Your task to perform on an android device: What's the weather today? Image 0: 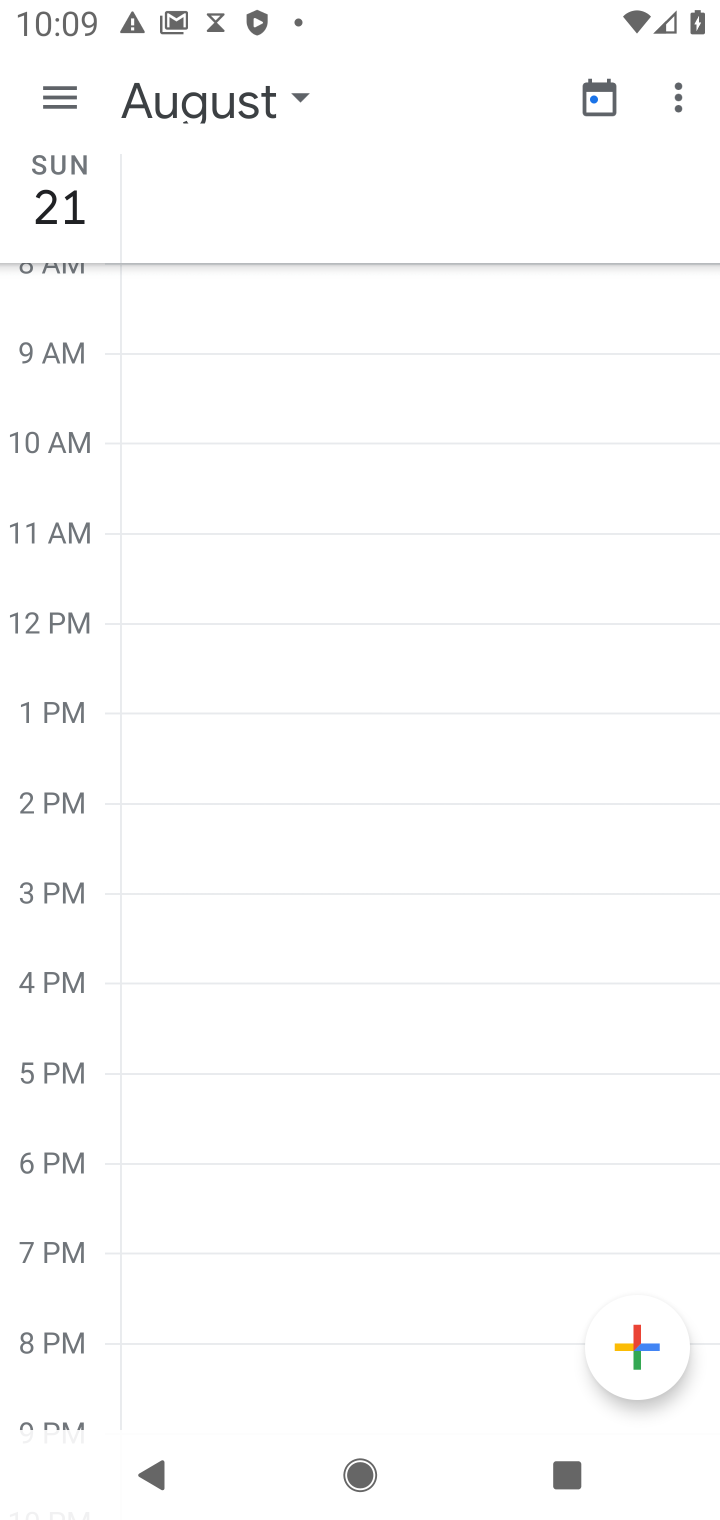
Step 0: press home button
Your task to perform on an android device: What's the weather today? Image 1: 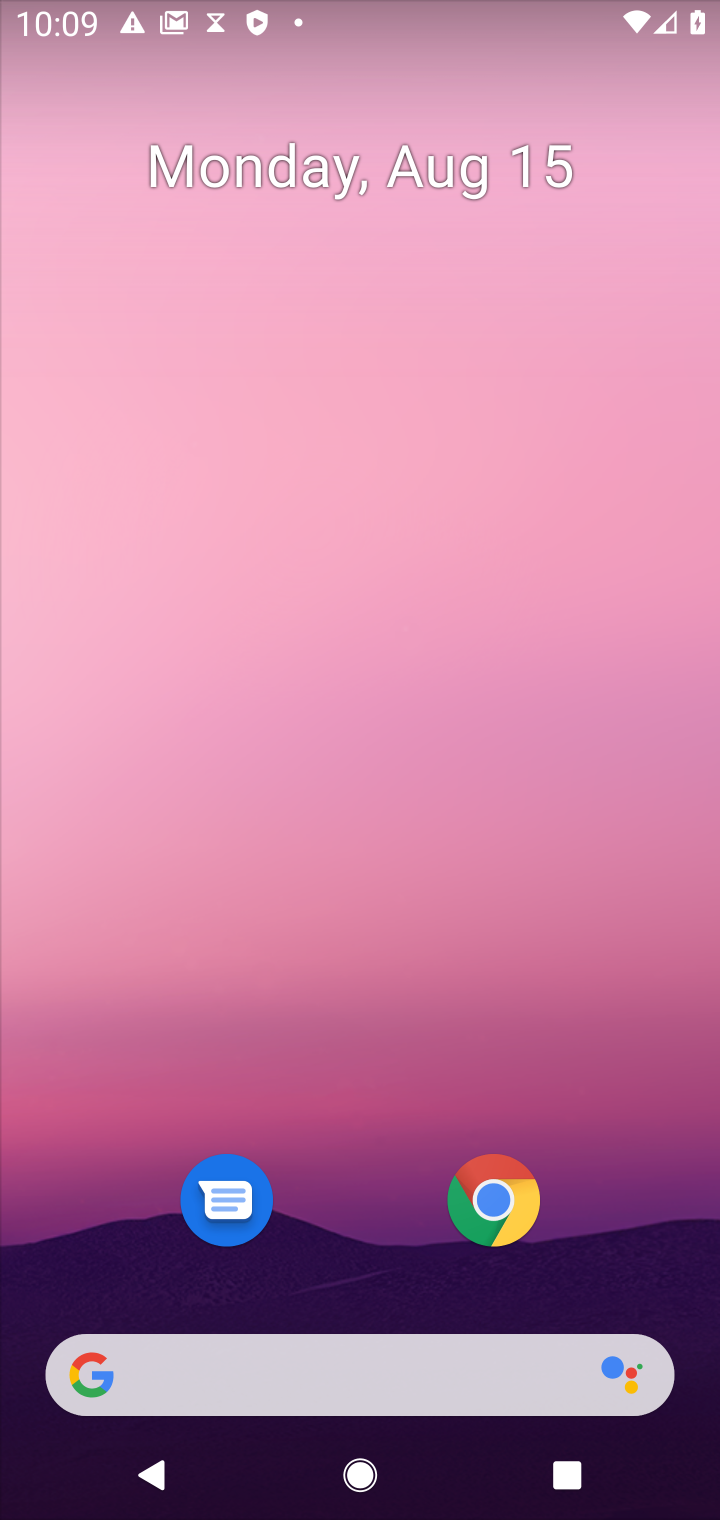
Step 1: drag from (379, 699) to (379, 279)
Your task to perform on an android device: What's the weather today? Image 2: 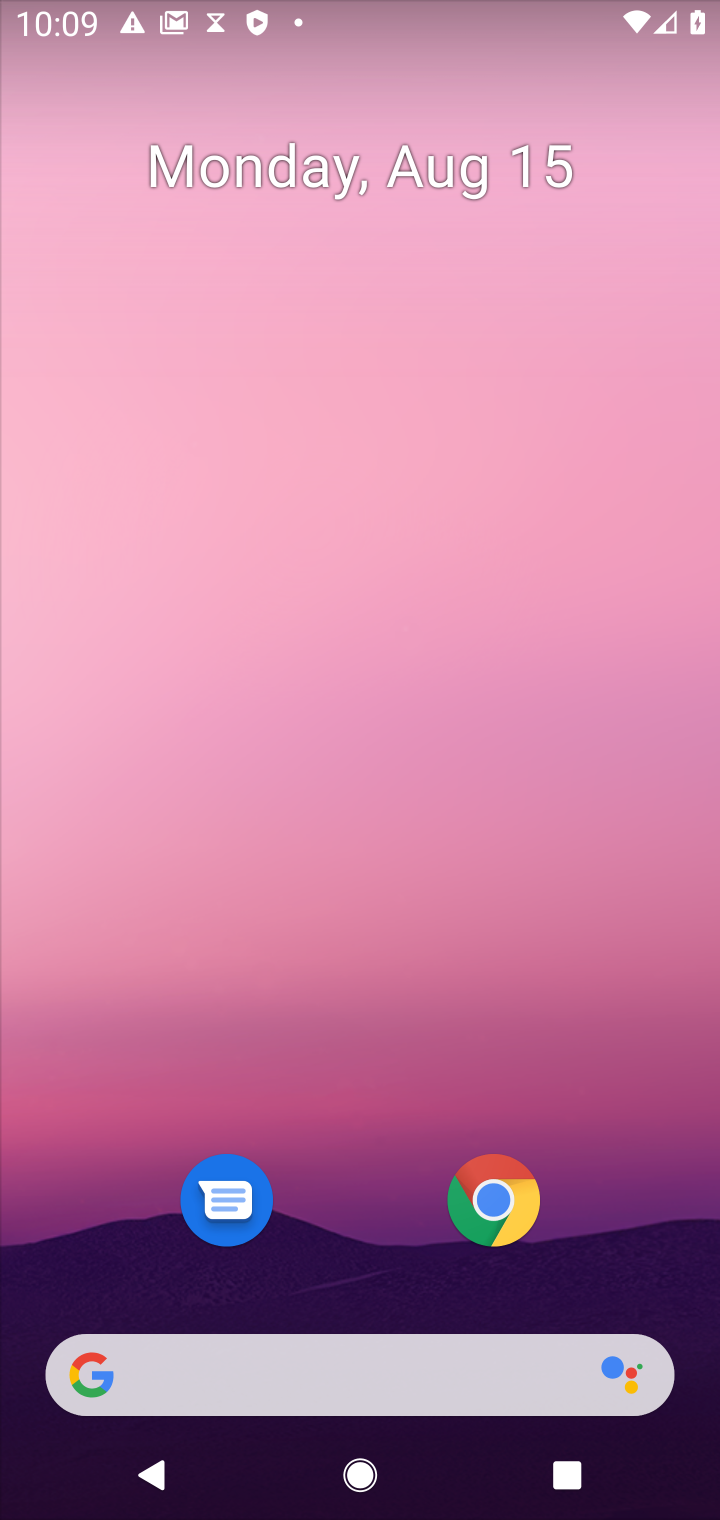
Step 2: drag from (361, 1260) to (373, 252)
Your task to perform on an android device: What's the weather today? Image 3: 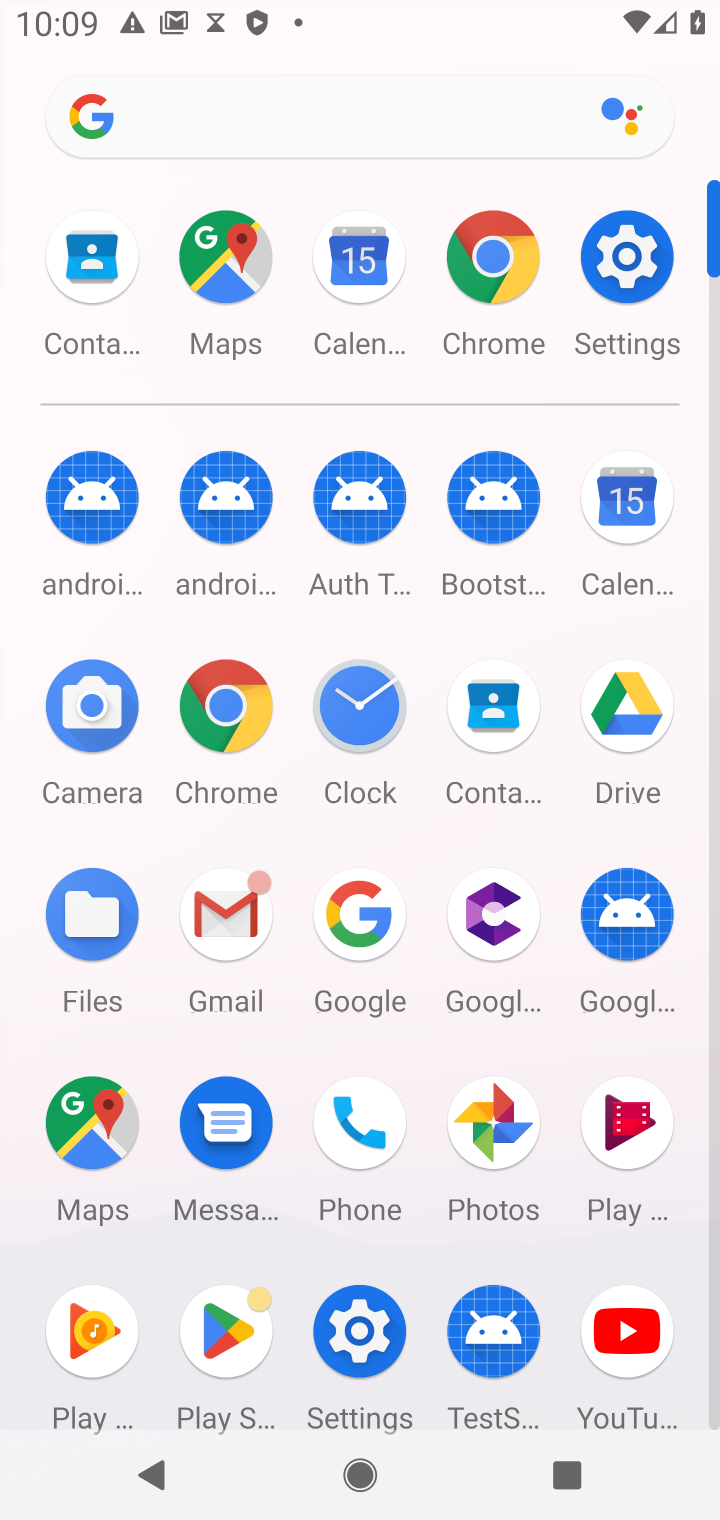
Step 3: click (348, 898)
Your task to perform on an android device: What's the weather today? Image 4: 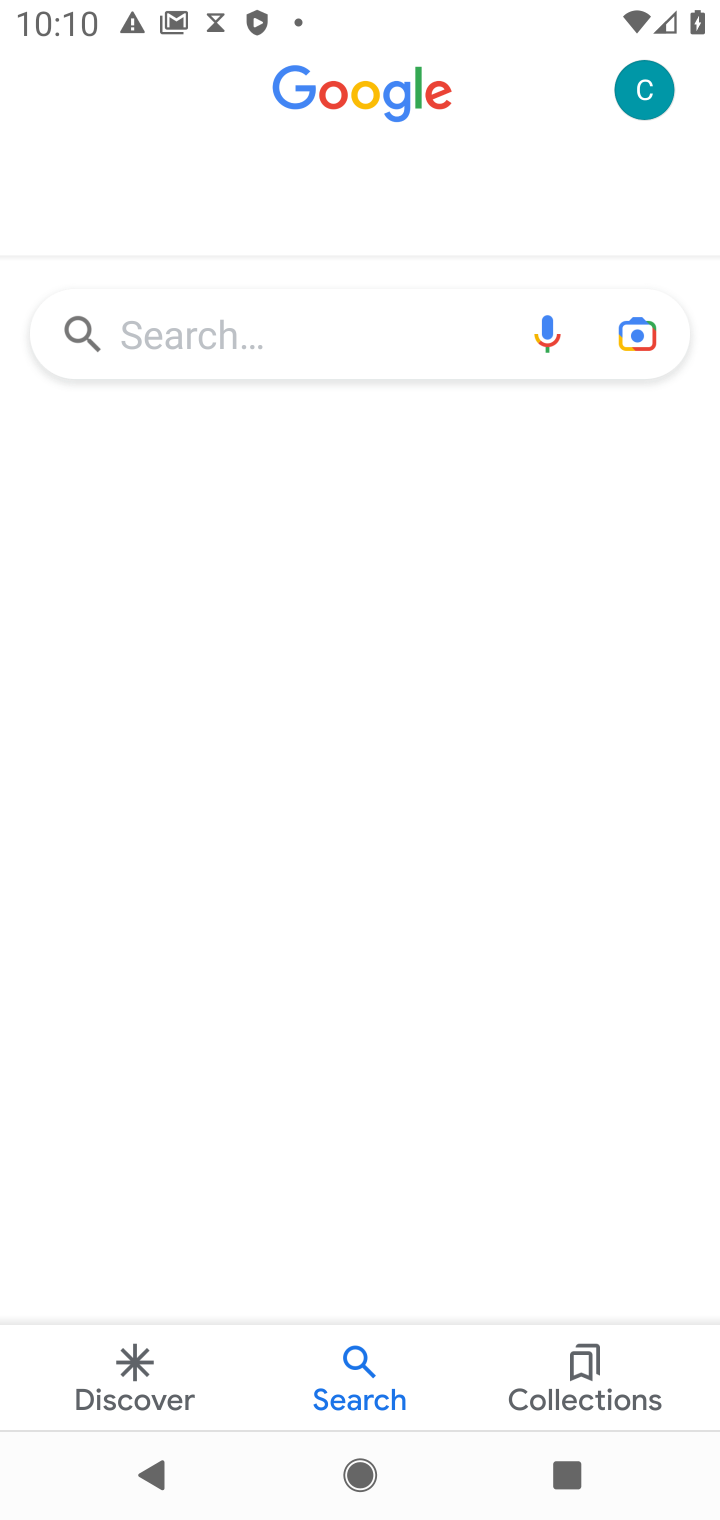
Step 4: click (292, 360)
Your task to perform on an android device: What's the weather today? Image 5: 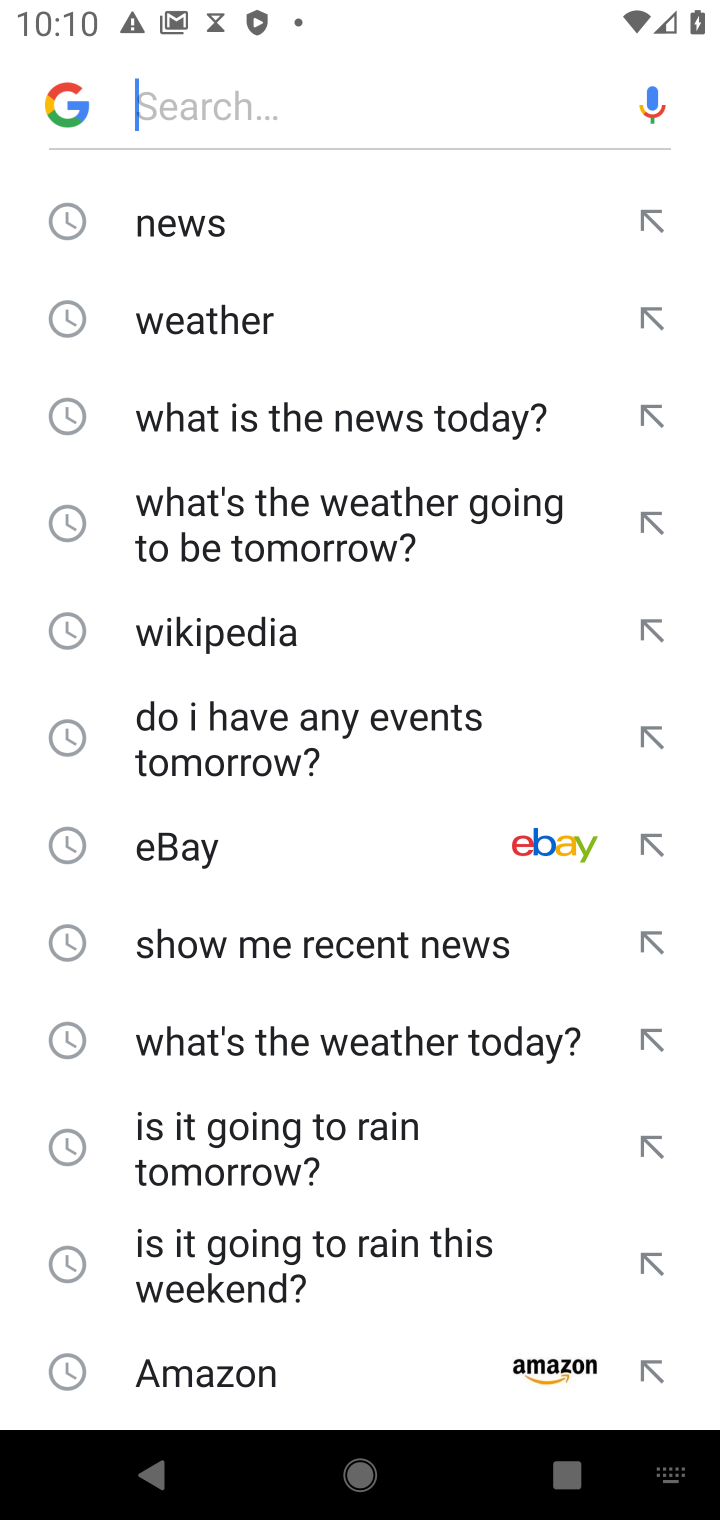
Step 5: click (244, 306)
Your task to perform on an android device: What's the weather today? Image 6: 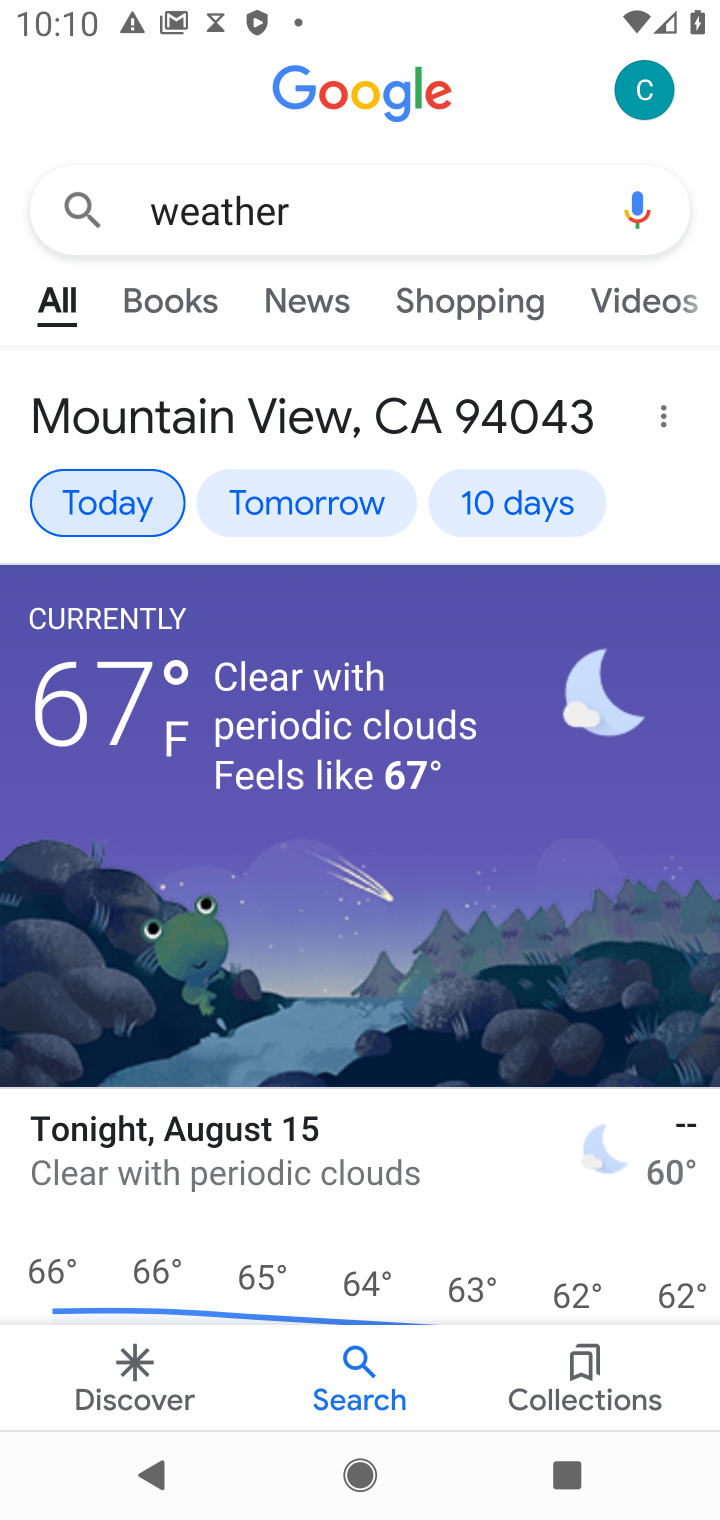
Step 6: task complete